Your task to perform on an android device: Go to Reddit.com Image 0: 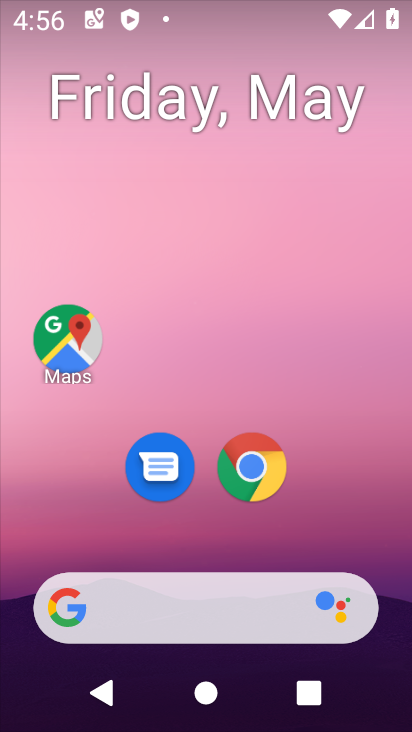
Step 0: click (247, 464)
Your task to perform on an android device: Go to Reddit.com Image 1: 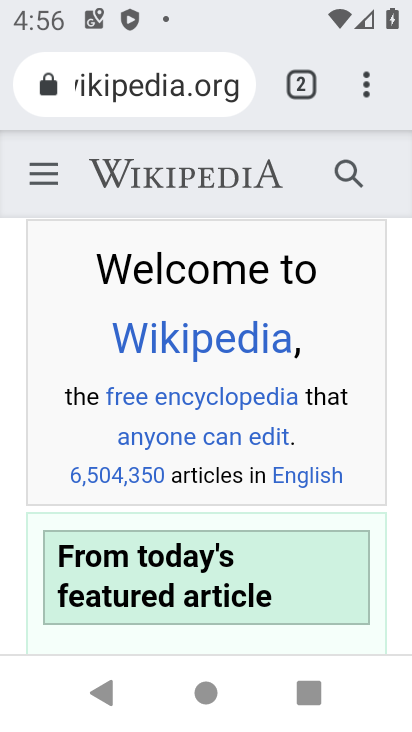
Step 1: click (290, 85)
Your task to perform on an android device: Go to Reddit.com Image 2: 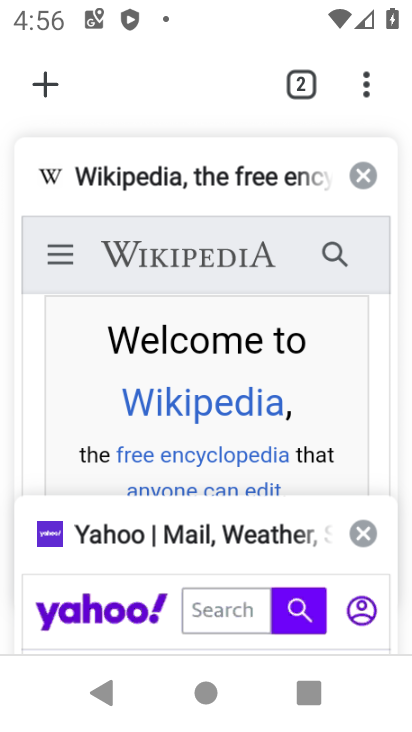
Step 2: click (51, 78)
Your task to perform on an android device: Go to Reddit.com Image 3: 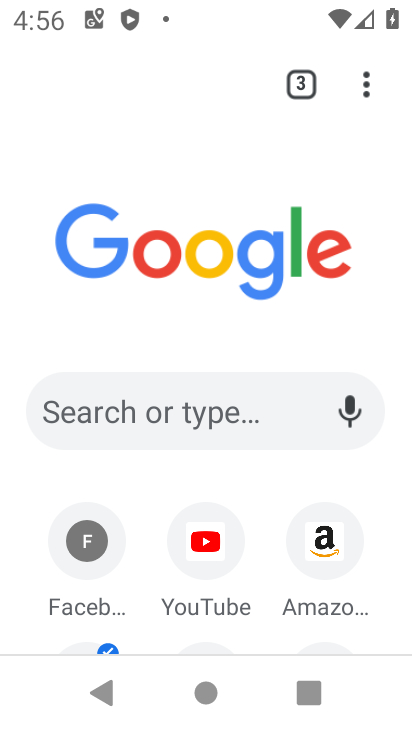
Step 3: click (224, 427)
Your task to perform on an android device: Go to Reddit.com Image 4: 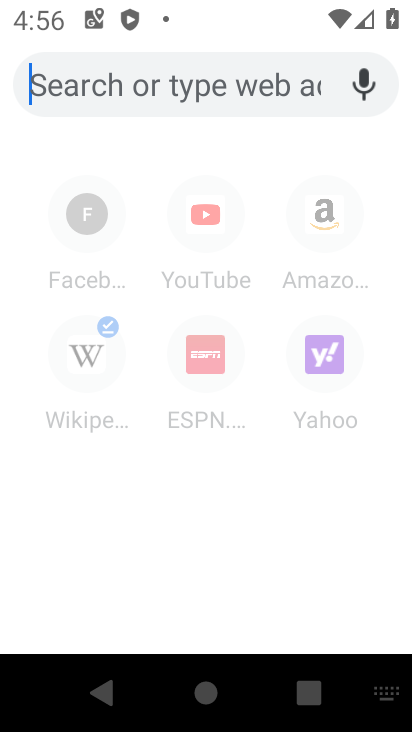
Step 4: type "Reddit.com"
Your task to perform on an android device: Go to Reddit.com Image 5: 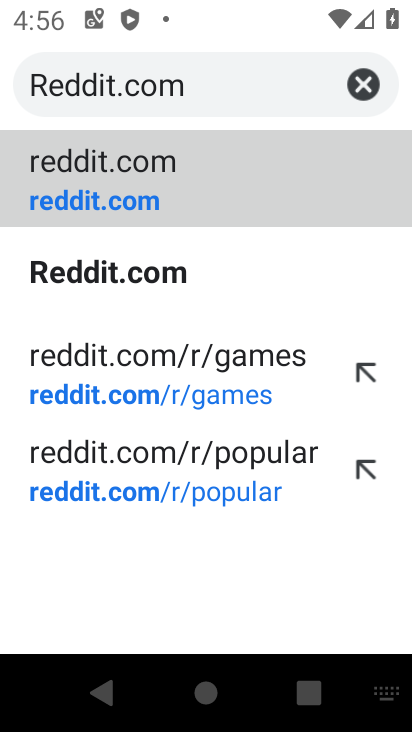
Step 5: click (116, 215)
Your task to perform on an android device: Go to Reddit.com Image 6: 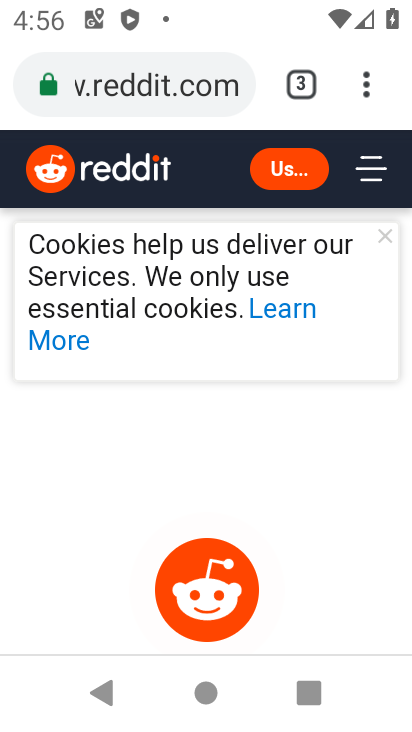
Step 6: task complete